Your task to perform on an android device: turn on translation in the chrome app Image 0: 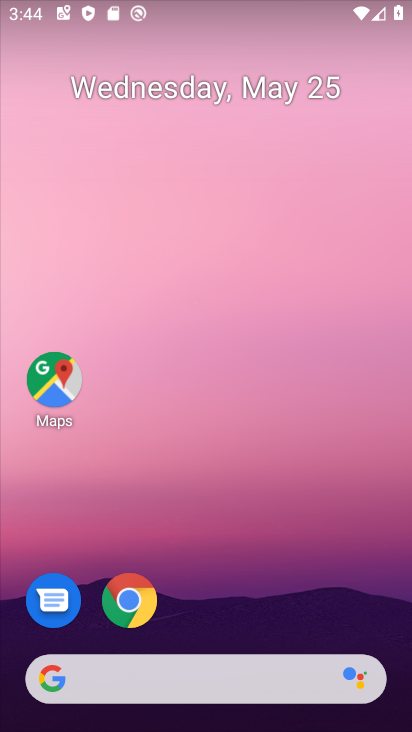
Step 0: click (138, 593)
Your task to perform on an android device: turn on translation in the chrome app Image 1: 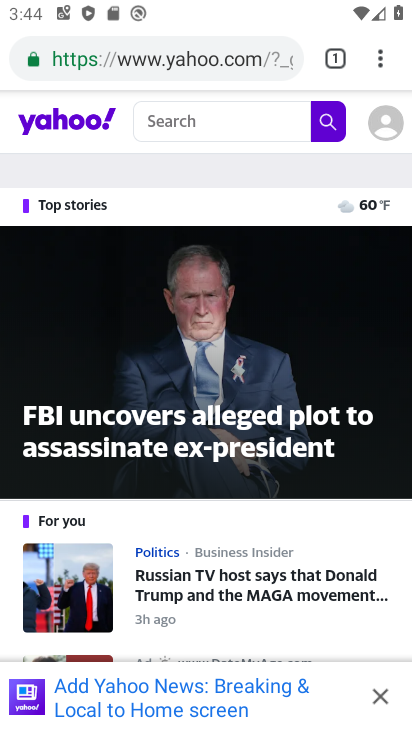
Step 1: click (380, 55)
Your task to perform on an android device: turn on translation in the chrome app Image 2: 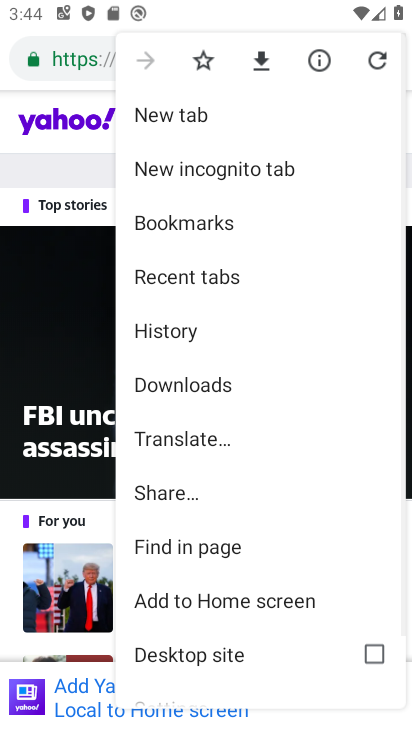
Step 2: drag from (162, 644) to (316, 116)
Your task to perform on an android device: turn on translation in the chrome app Image 3: 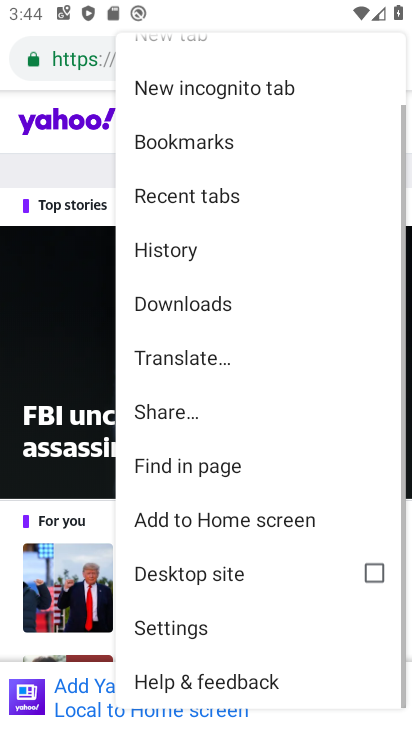
Step 3: click (203, 628)
Your task to perform on an android device: turn on translation in the chrome app Image 4: 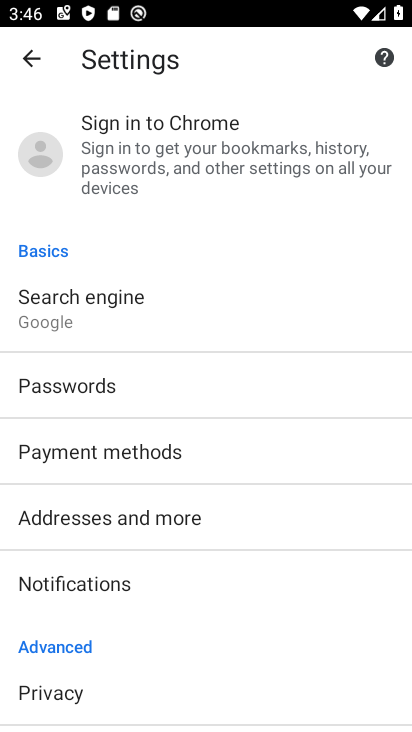
Step 4: drag from (163, 692) to (307, 133)
Your task to perform on an android device: turn on translation in the chrome app Image 5: 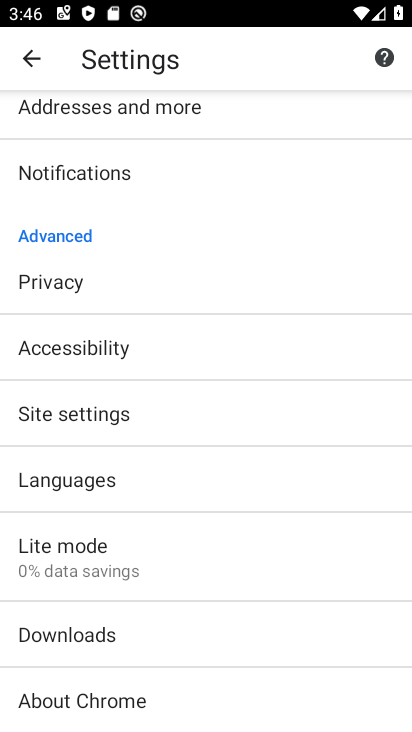
Step 5: click (118, 413)
Your task to perform on an android device: turn on translation in the chrome app Image 6: 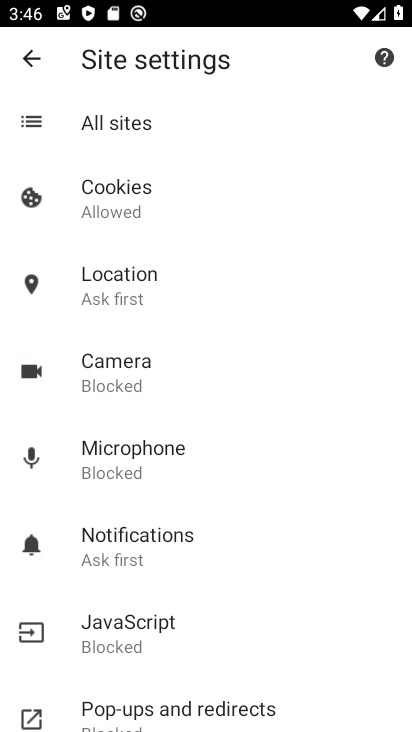
Step 6: drag from (33, 671) to (189, 179)
Your task to perform on an android device: turn on translation in the chrome app Image 7: 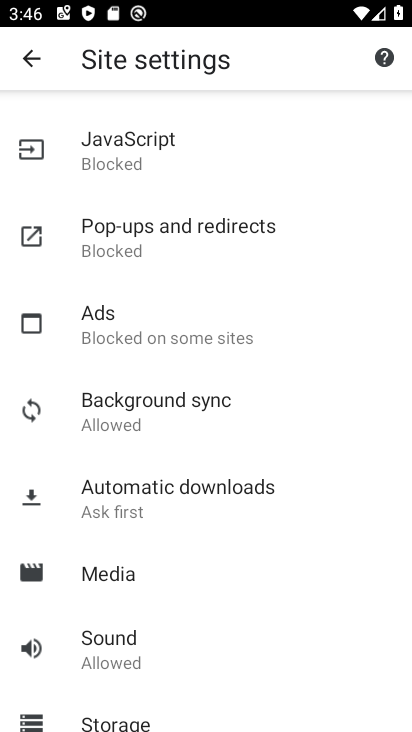
Step 7: press back button
Your task to perform on an android device: turn on translation in the chrome app Image 8: 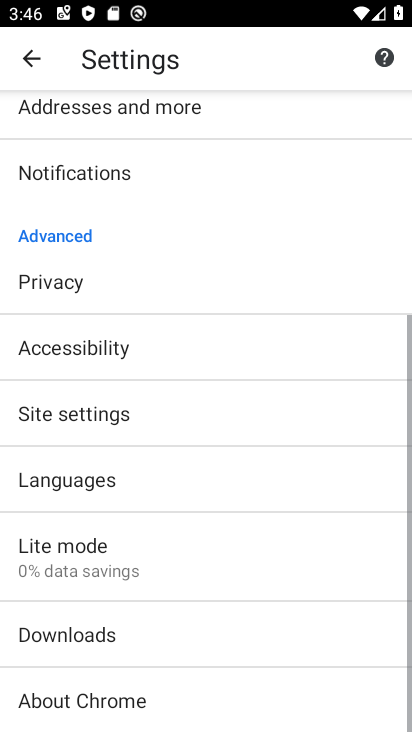
Step 8: click (70, 489)
Your task to perform on an android device: turn on translation in the chrome app Image 9: 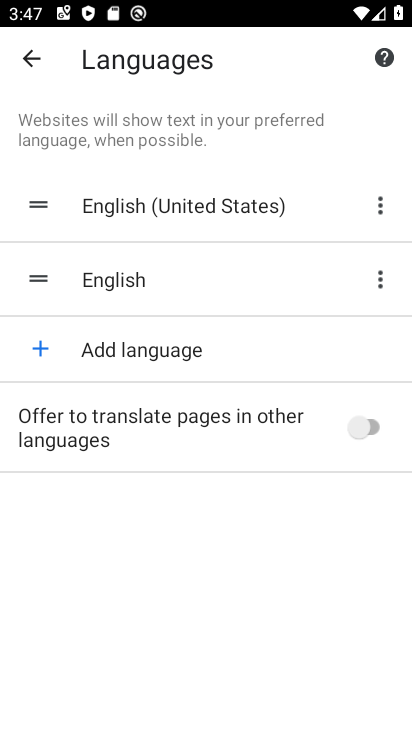
Step 9: click (359, 433)
Your task to perform on an android device: turn on translation in the chrome app Image 10: 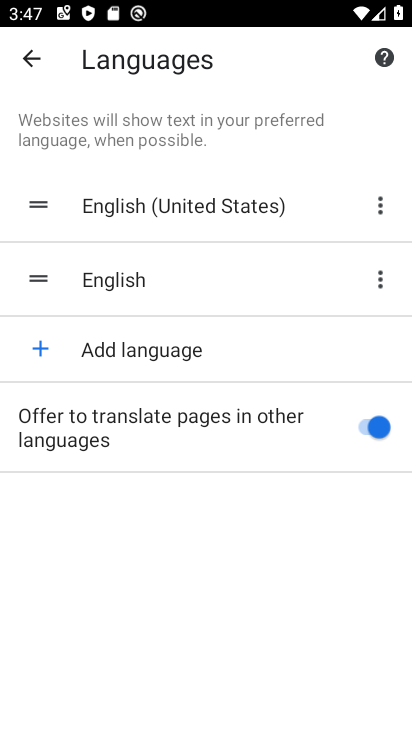
Step 10: task complete